Your task to perform on an android device: Open calendar and show me the first week of next month Image 0: 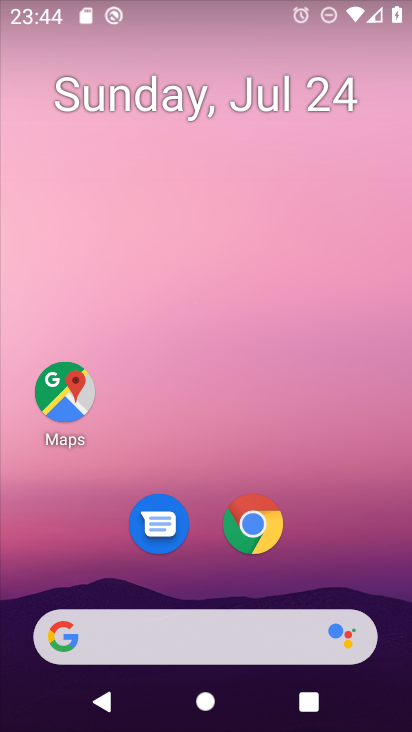
Step 0: press home button
Your task to perform on an android device: Open calendar and show me the first week of next month Image 1: 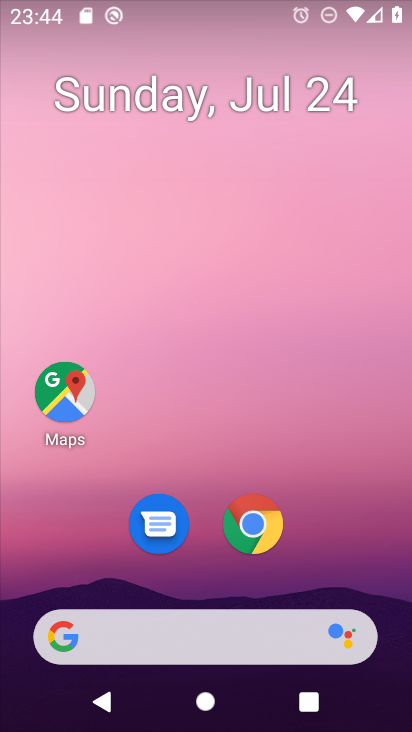
Step 1: drag from (242, 484) to (315, 145)
Your task to perform on an android device: Open calendar and show me the first week of next month Image 2: 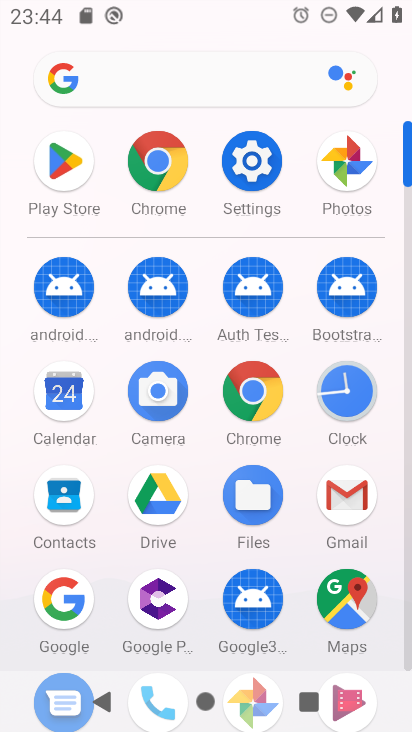
Step 2: click (61, 393)
Your task to perform on an android device: Open calendar and show me the first week of next month Image 3: 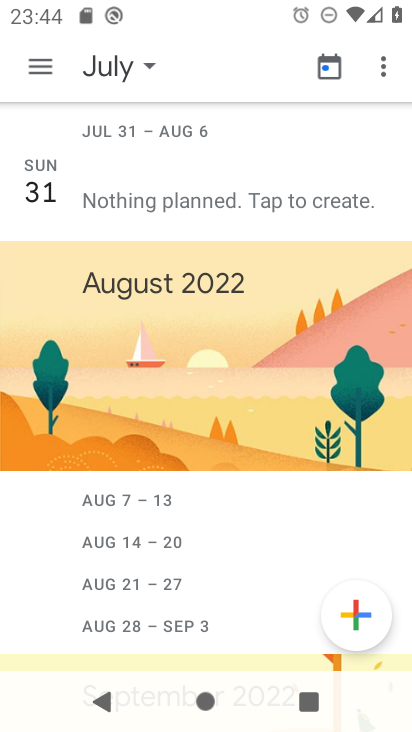
Step 3: click (107, 65)
Your task to perform on an android device: Open calendar and show me the first week of next month Image 4: 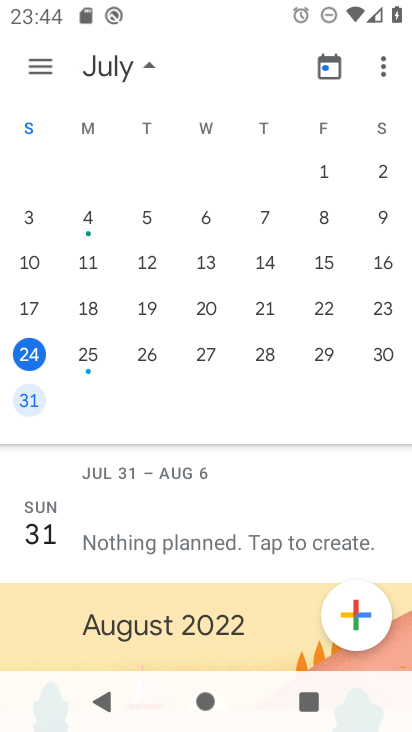
Step 4: drag from (362, 320) to (7, 295)
Your task to perform on an android device: Open calendar and show me the first week of next month Image 5: 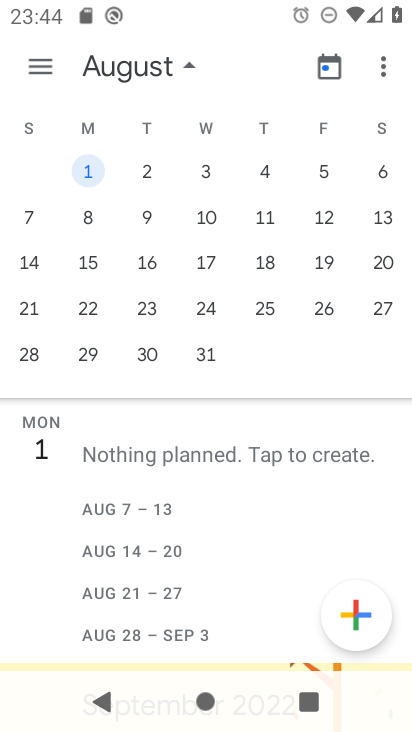
Step 5: click (86, 175)
Your task to perform on an android device: Open calendar and show me the first week of next month Image 6: 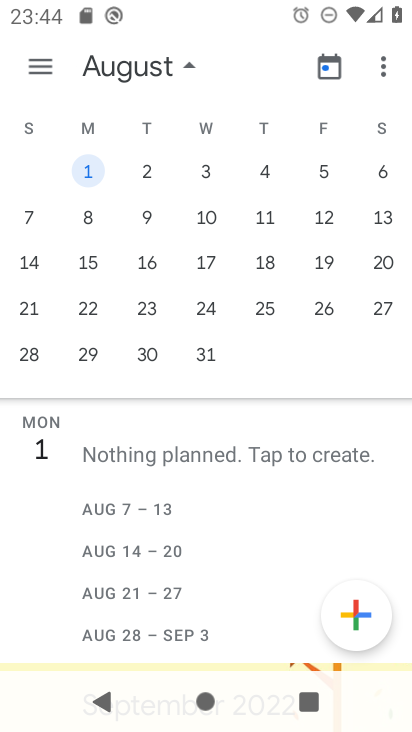
Step 6: click (38, 72)
Your task to perform on an android device: Open calendar and show me the first week of next month Image 7: 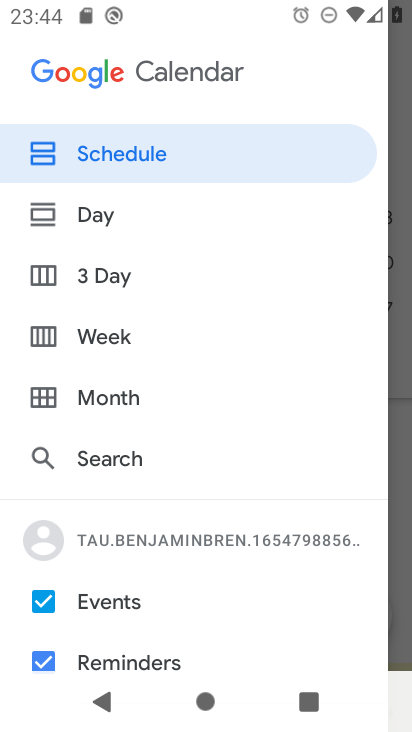
Step 7: click (116, 343)
Your task to perform on an android device: Open calendar and show me the first week of next month Image 8: 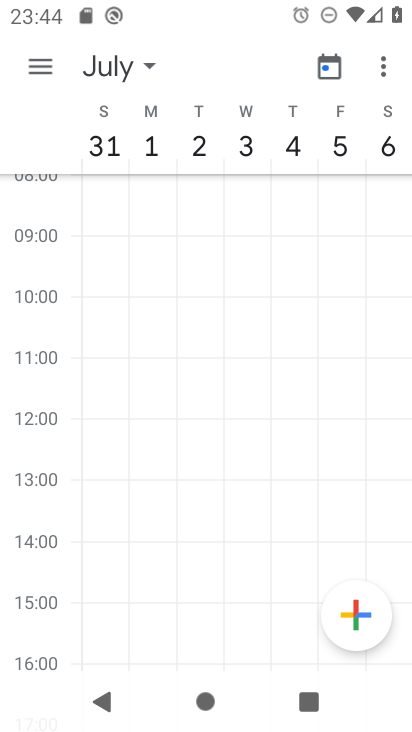
Step 8: task complete